Your task to perform on an android device: Show me popular videos on Youtube Image 0: 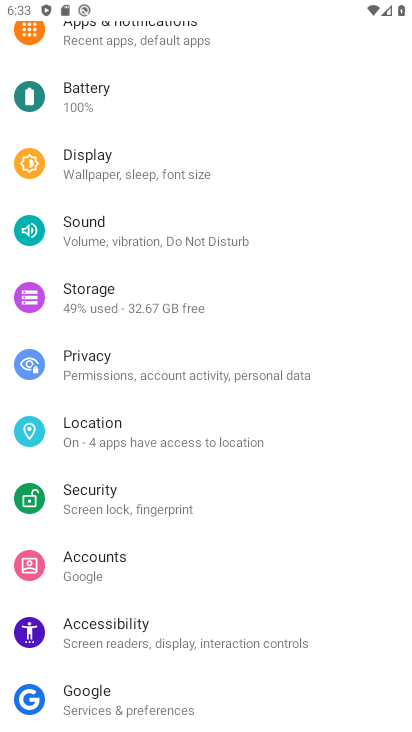
Step 0: press home button
Your task to perform on an android device: Show me popular videos on Youtube Image 1: 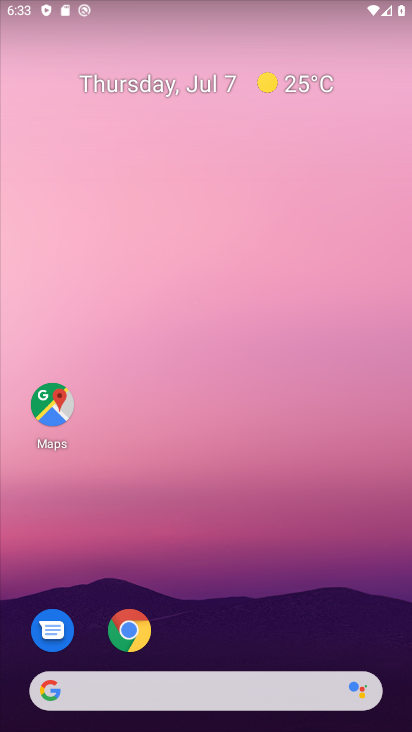
Step 1: drag from (240, 605) to (168, 233)
Your task to perform on an android device: Show me popular videos on Youtube Image 2: 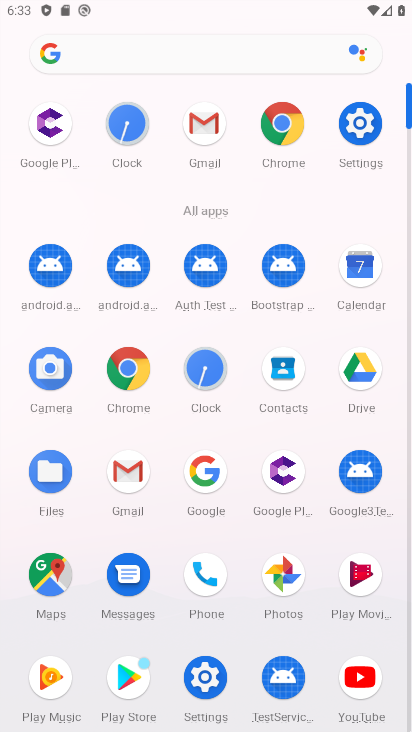
Step 2: click (361, 679)
Your task to perform on an android device: Show me popular videos on Youtube Image 3: 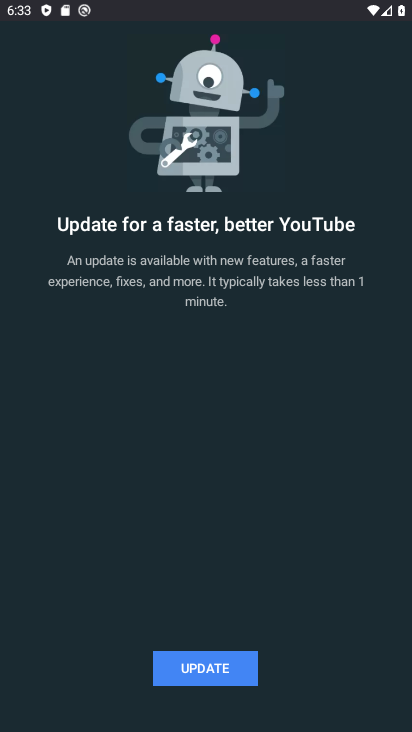
Step 3: click (221, 671)
Your task to perform on an android device: Show me popular videos on Youtube Image 4: 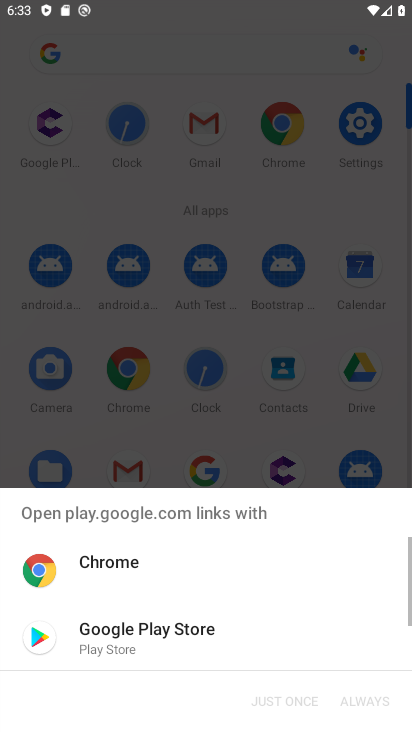
Step 4: click (154, 640)
Your task to perform on an android device: Show me popular videos on Youtube Image 5: 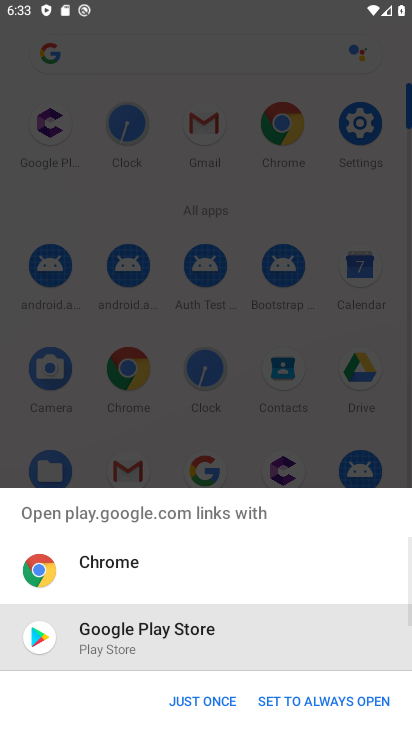
Step 5: click (212, 700)
Your task to perform on an android device: Show me popular videos on Youtube Image 6: 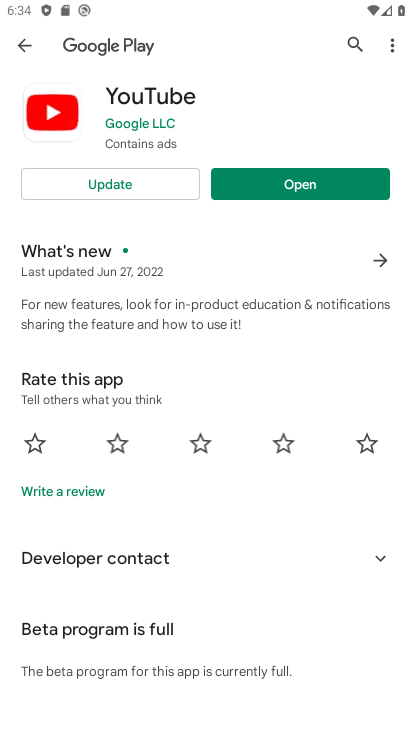
Step 6: click (106, 184)
Your task to perform on an android device: Show me popular videos on Youtube Image 7: 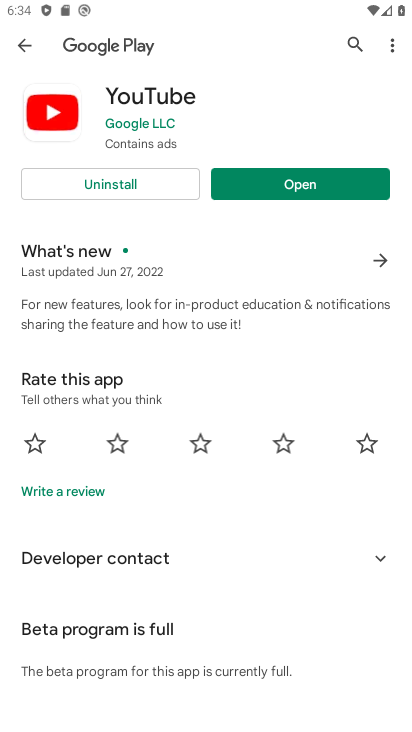
Step 7: click (293, 178)
Your task to perform on an android device: Show me popular videos on Youtube Image 8: 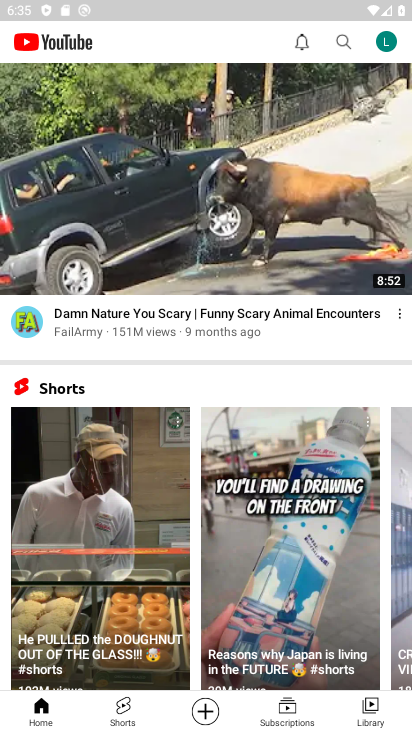
Step 8: click (122, 707)
Your task to perform on an android device: Show me popular videos on Youtube Image 9: 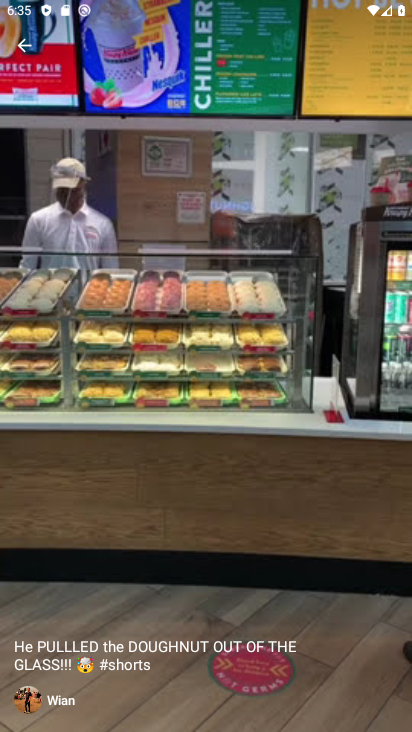
Step 9: task complete